Your task to perform on an android device: see sites visited before in the chrome app Image 0: 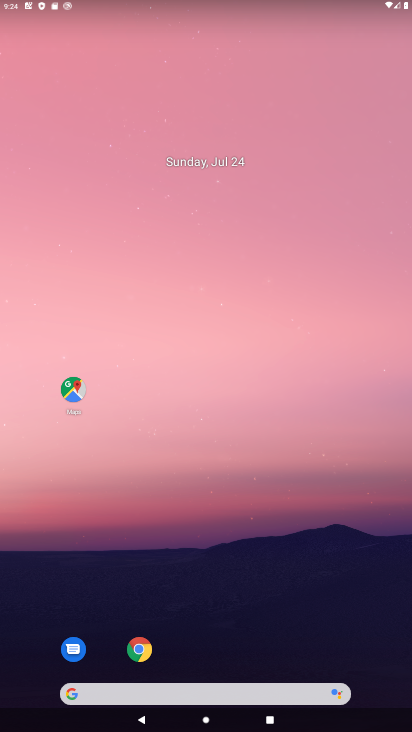
Step 0: click (131, 644)
Your task to perform on an android device: see sites visited before in the chrome app Image 1: 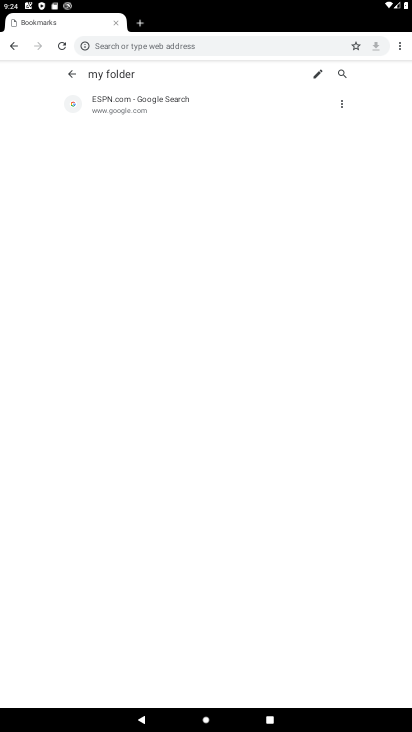
Step 1: click (400, 47)
Your task to perform on an android device: see sites visited before in the chrome app Image 2: 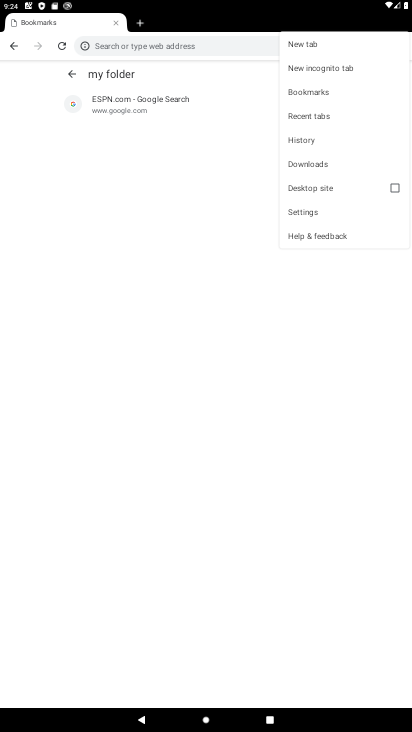
Step 2: click (317, 137)
Your task to perform on an android device: see sites visited before in the chrome app Image 3: 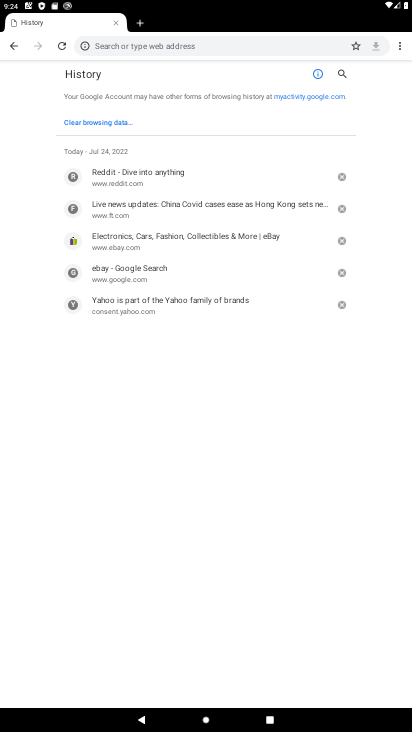
Step 3: task complete